Your task to perform on an android device: Open wifi settings Image 0: 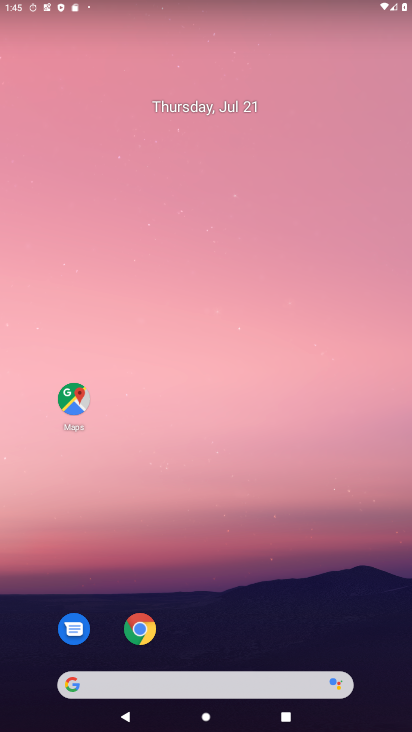
Step 0: drag from (68, 639) to (247, 135)
Your task to perform on an android device: Open wifi settings Image 1: 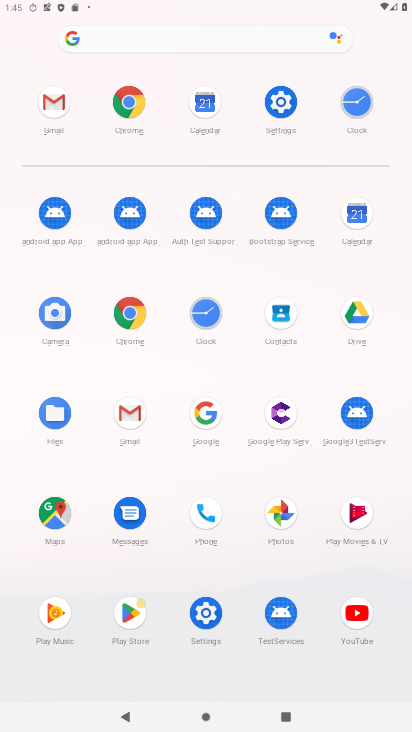
Step 1: click (188, 619)
Your task to perform on an android device: Open wifi settings Image 2: 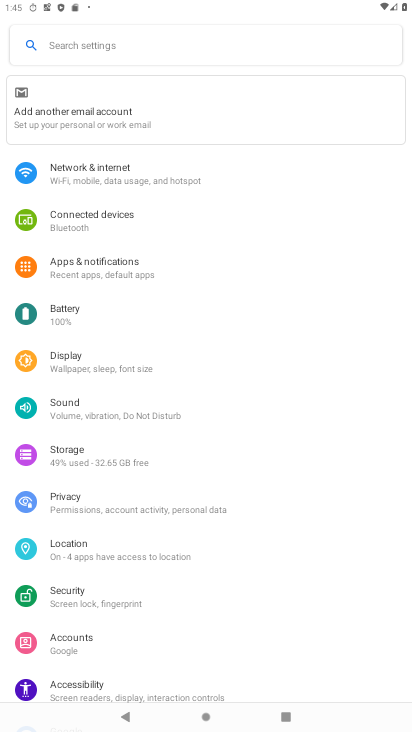
Step 2: click (111, 176)
Your task to perform on an android device: Open wifi settings Image 3: 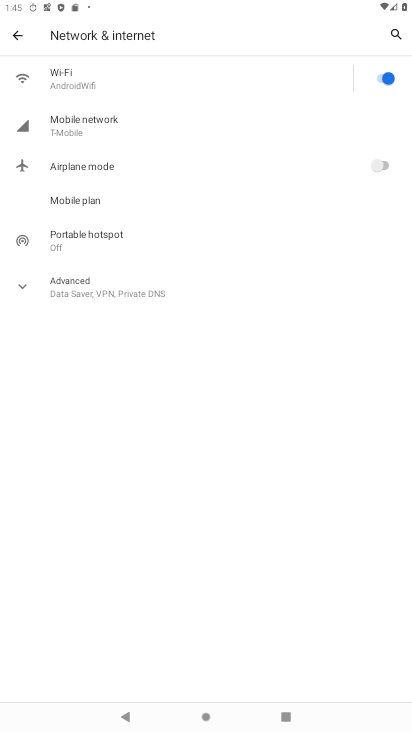
Step 3: task complete